Your task to perform on an android device: change the clock display to analog Image 0: 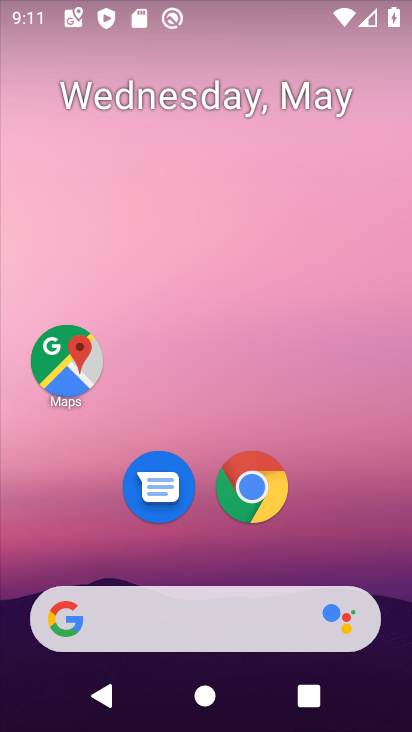
Step 0: drag from (340, 519) to (311, 128)
Your task to perform on an android device: change the clock display to analog Image 1: 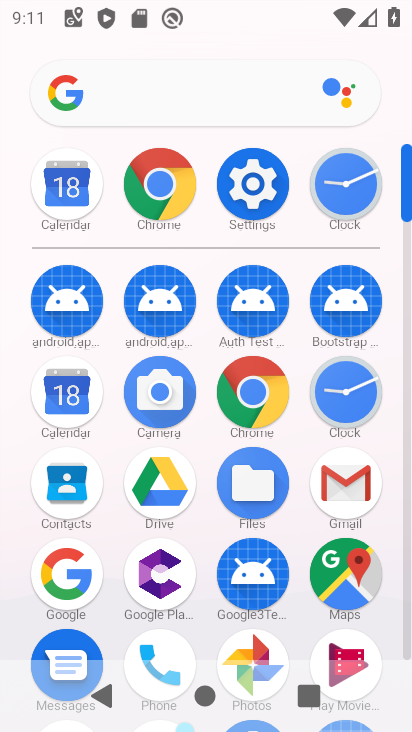
Step 1: click (347, 192)
Your task to perform on an android device: change the clock display to analog Image 2: 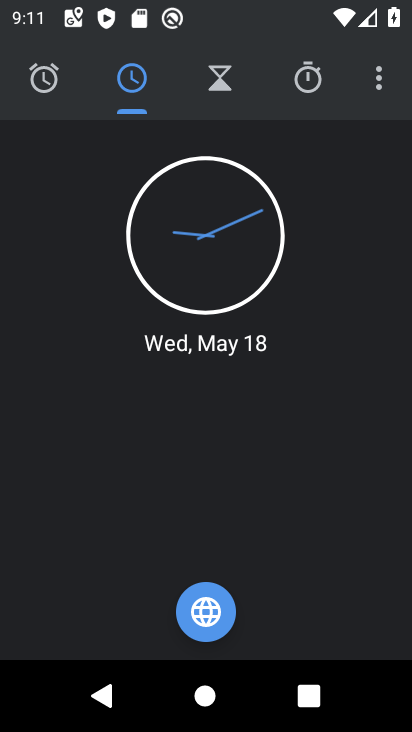
Step 2: click (375, 71)
Your task to perform on an android device: change the clock display to analog Image 3: 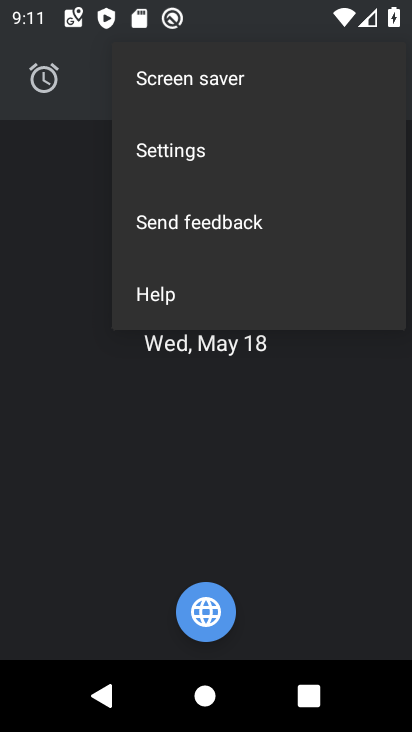
Step 3: click (194, 148)
Your task to perform on an android device: change the clock display to analog Image 4: 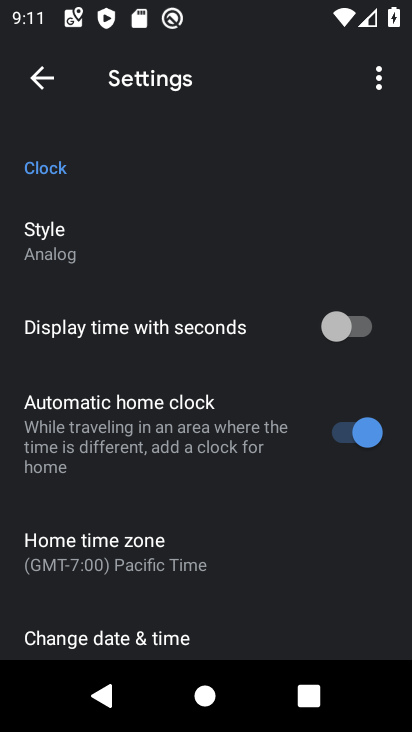
Step 4: task complete